Your task to perform on an android device: Go to location settings Image 0: 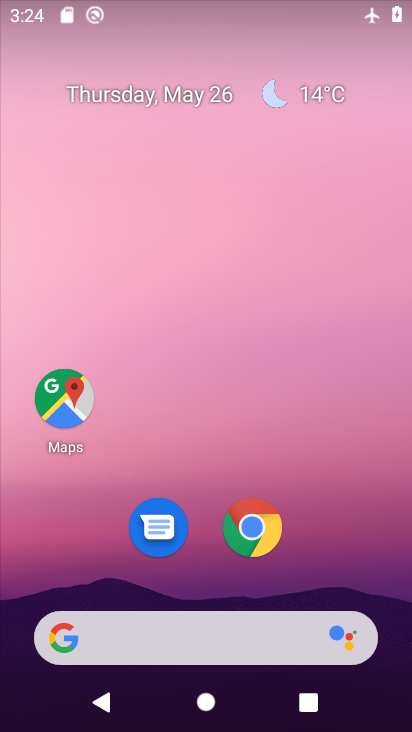
Step 0: drag from (365, 580) to (165, 91)
Your task to perform on an android device: Go to location settings Image 1: 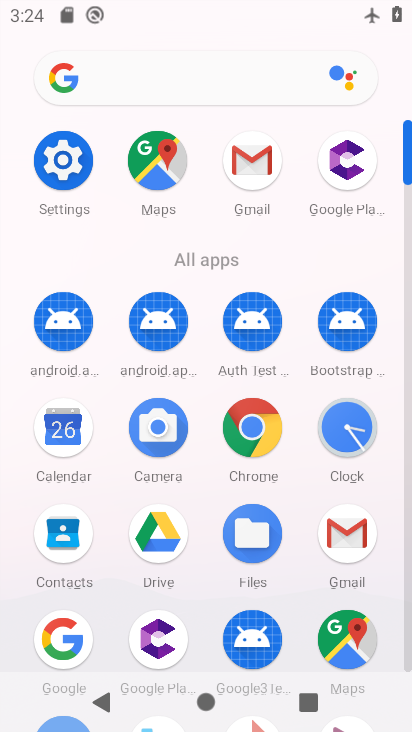
Step 1: click (80, 162)
Your task to perform on an android device: Go to location settings Image 2: 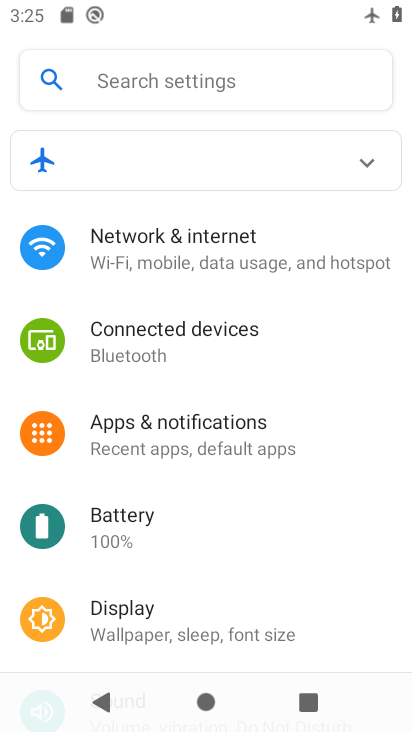
Step 2: drag from (149, 569) to (118, 209)
Your task to perform on an android device: Go to location settings Image 3: 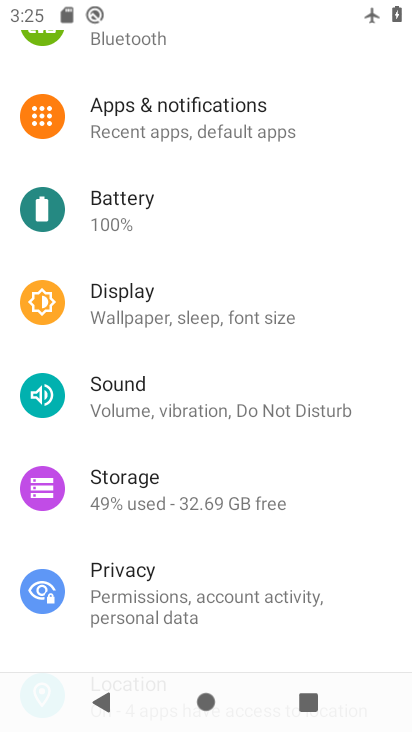
Step 3: drag from (180, 541) to (138, 217)
Your task to perform on an android device: Go to location settings Image 4: 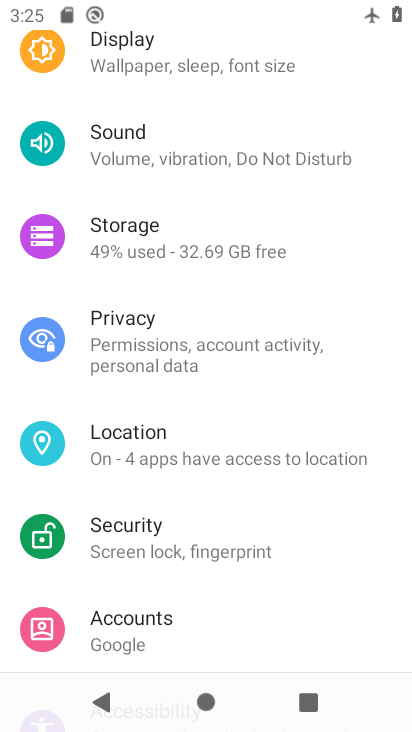
Step 4: click (150, 454)
Your task to perform on an android device: Go to location settings Image 5: 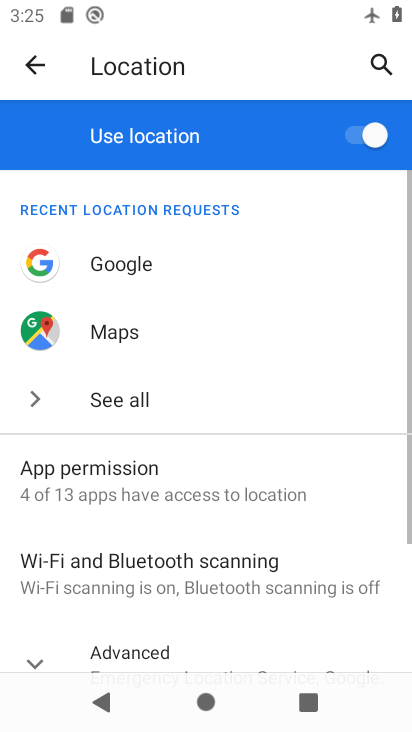
Step 5: task complete